Your task to perform on an android device: open app "Duolingo: language lessons" Image 0: 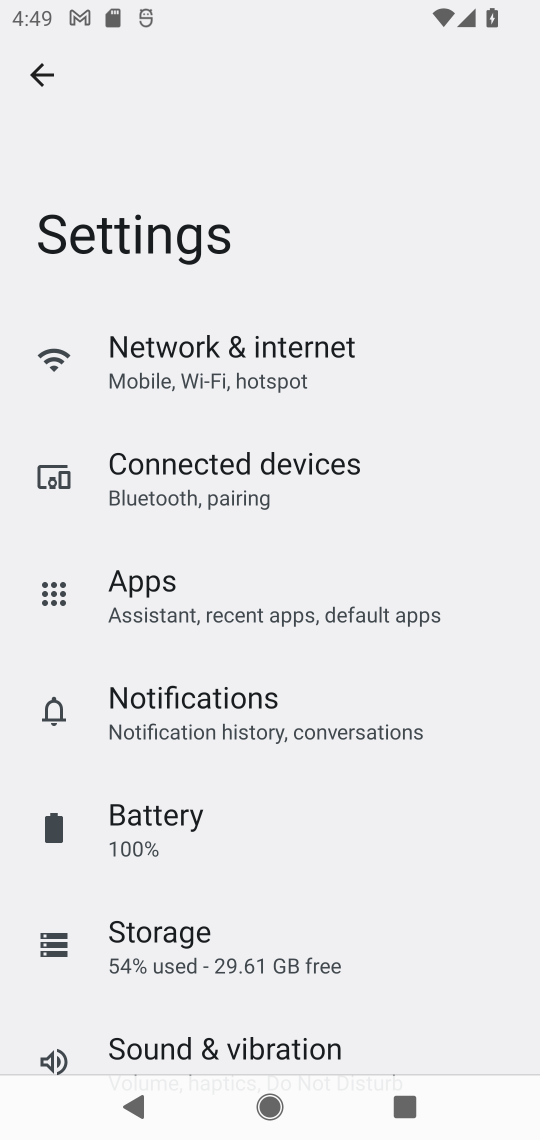
Step 0: press home button
Your task to perform on an android device: open app "Duolingo: language lessons" Image 1: 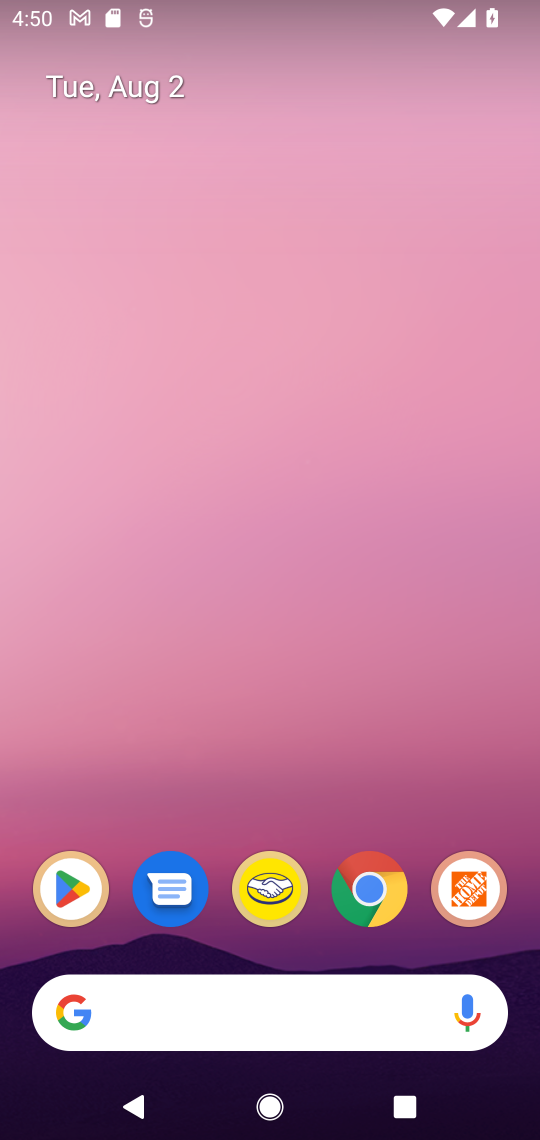
Step 1: drag from (415, 760) to (332, 75)
Your task to perform on an android device: open app "Duolingo: language lessons" Image 2: 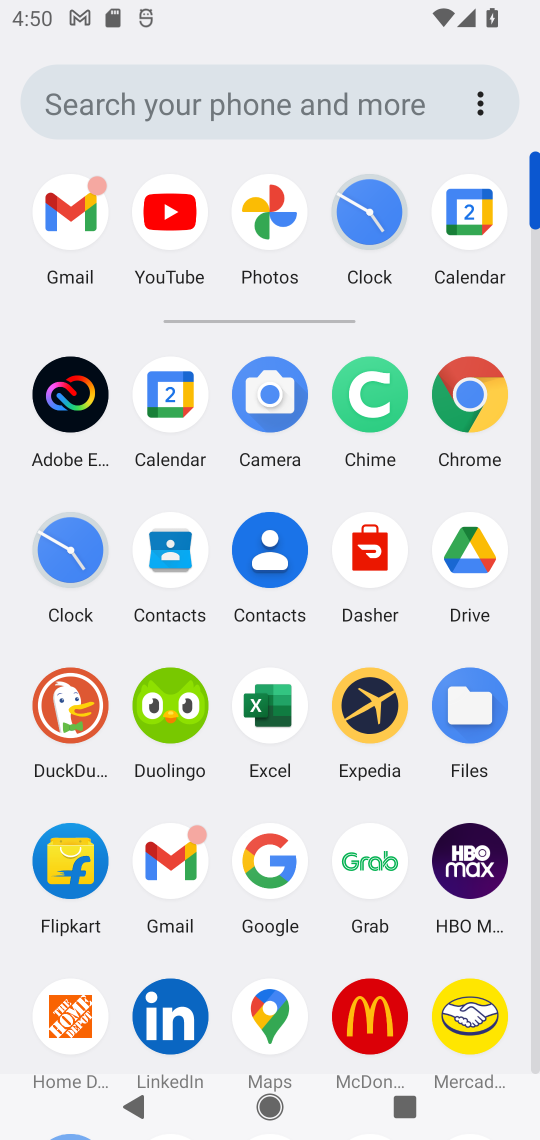
Step 2: drag from (514, 828) to (509, 511)
Your task to perform on an android device: open app "Duolingo: language lessons" Image 3: 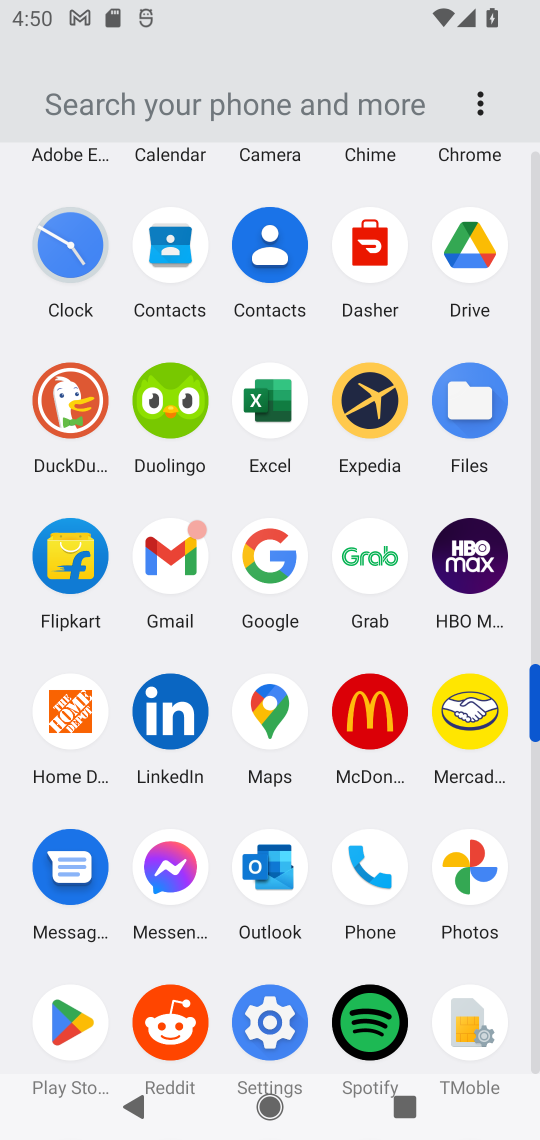
Step 3: drag from (515, 975) to (531, 608)
Your task to perform on an android device: open app "Duolingo: language lessons" Image 4: 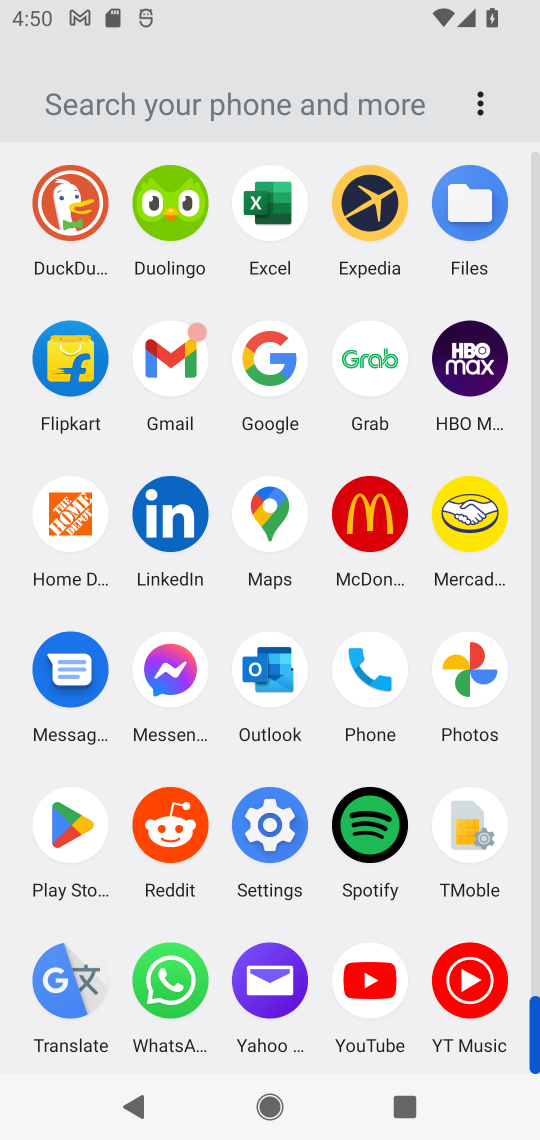
Step 4: click (65, 819)
Your task to perform on an android device: open app "Duolingo: language lessons" Image 5: 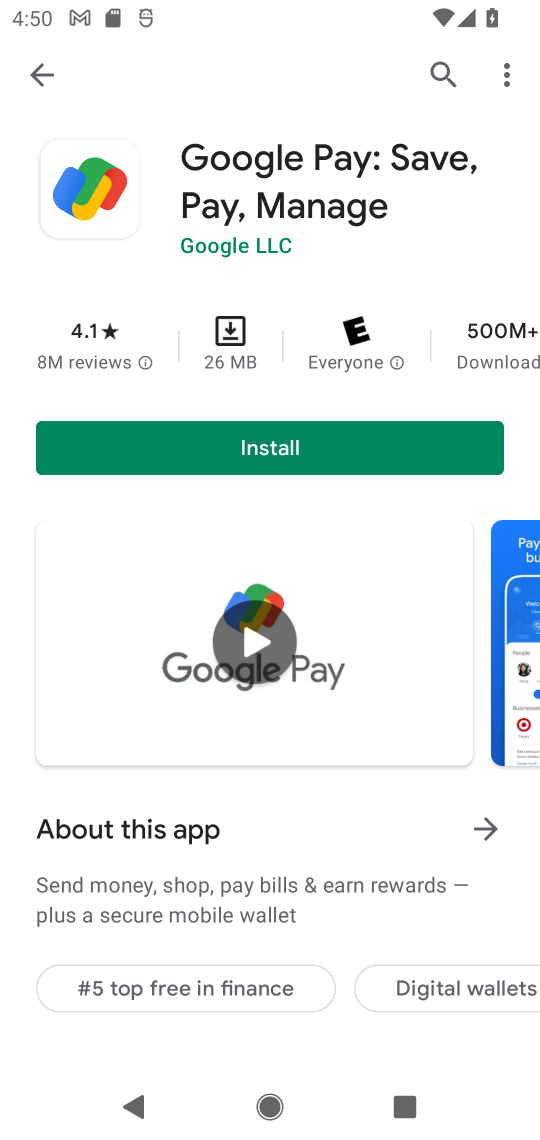
Step 5: click (438, 72)
Your task to perform on an android device: open app "Duolingo: language lessons" Image 6: 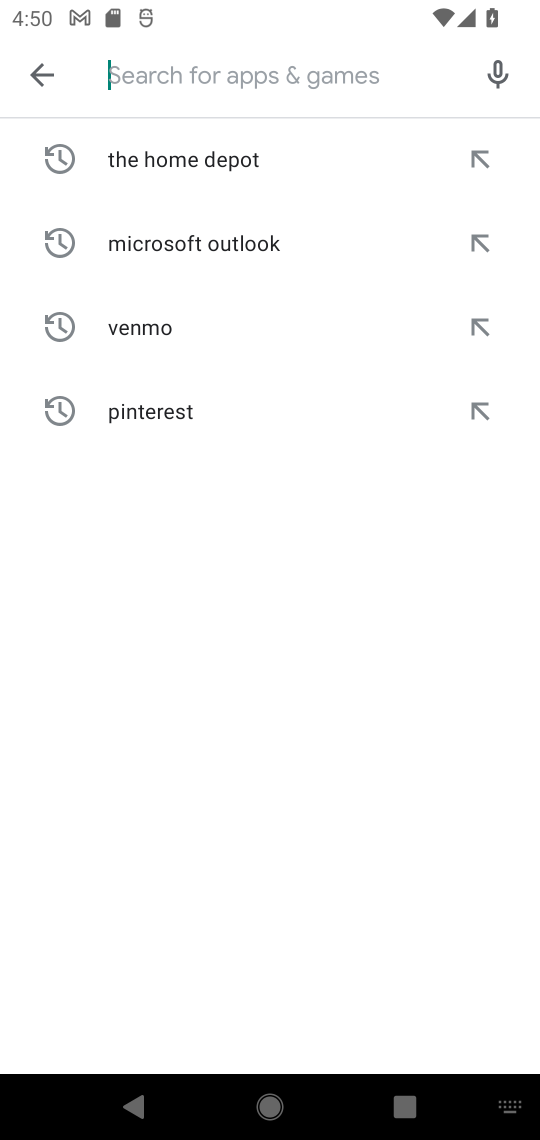
Step 6: click (343, 81)
Your task to perform on an android device: open app "Duolingo: language lessons" Image 7: 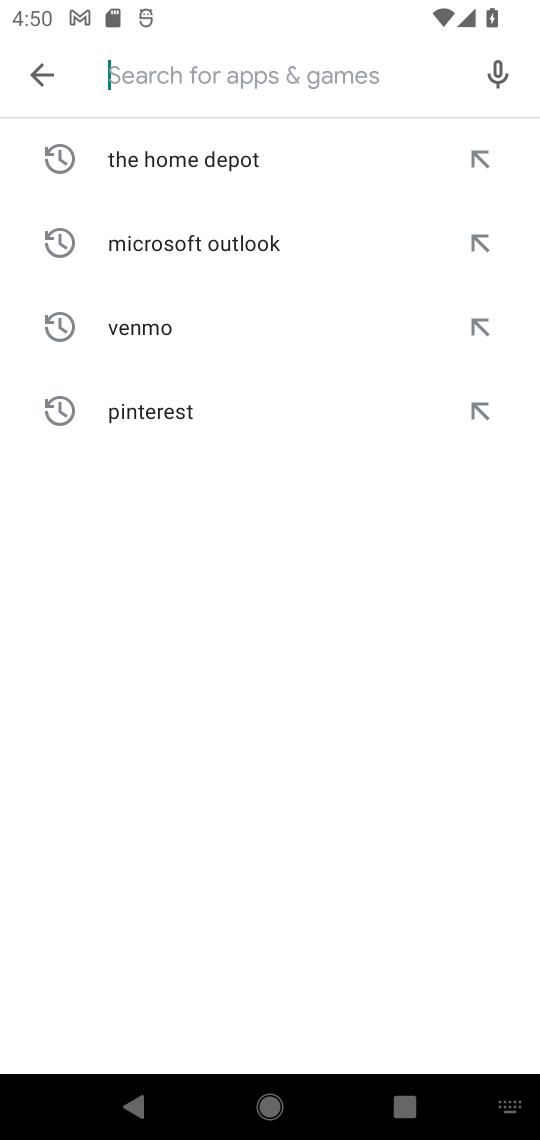
Step 7: type "Duolingo: language lessons"
Your task to perform on an android device: open app "Duolingo: language lessons" Image 8: 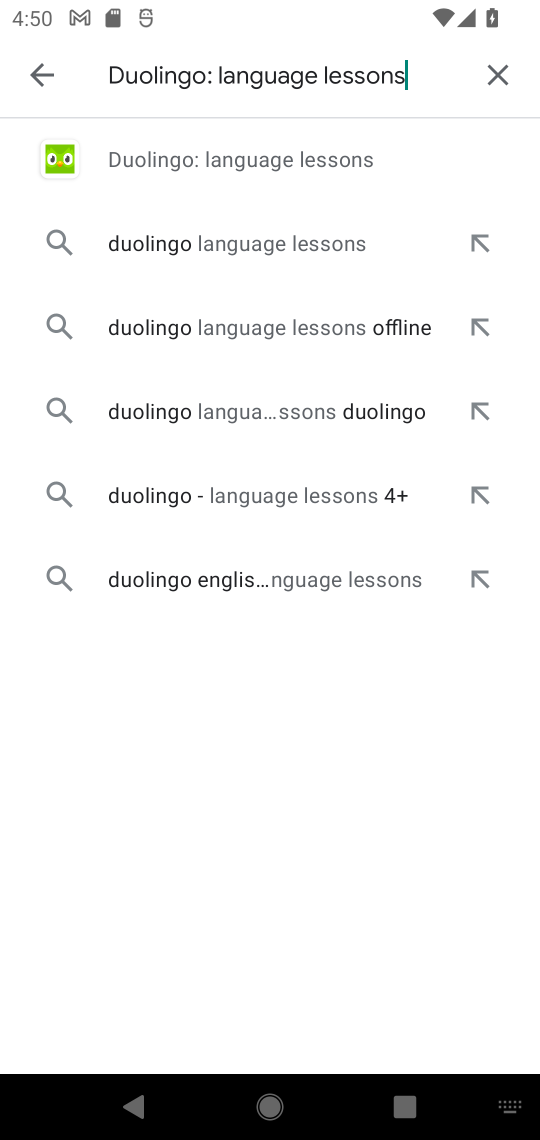
Step 8: click (309, 164)
Your task to perform on an android device: open app "Duolingo: language lessons" Image 9: 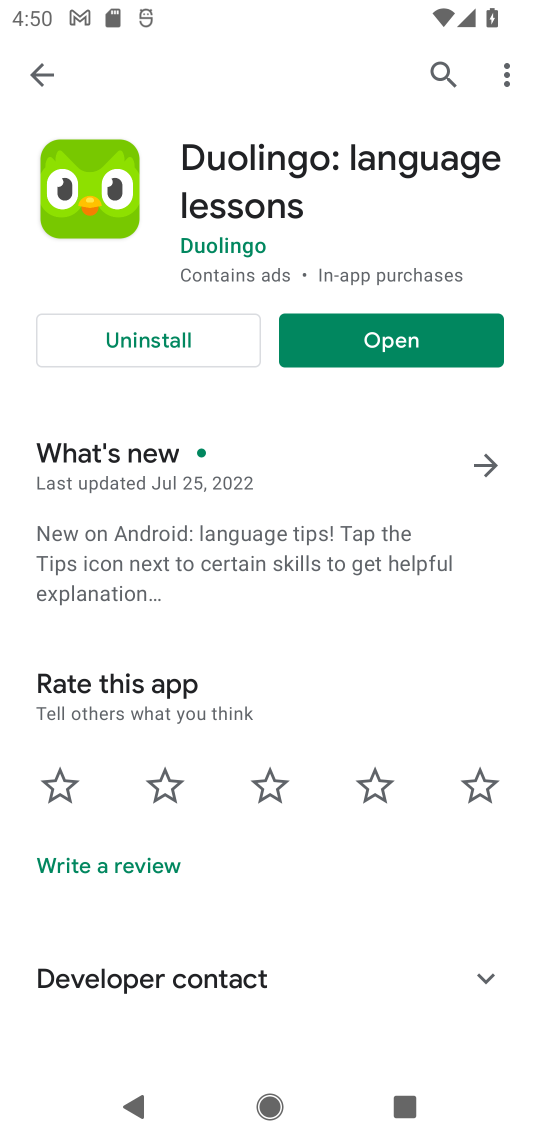
Step 9: click (384, 337)
Your task to perform on an android device: open app "Duolingo: language lessons" Image 10: 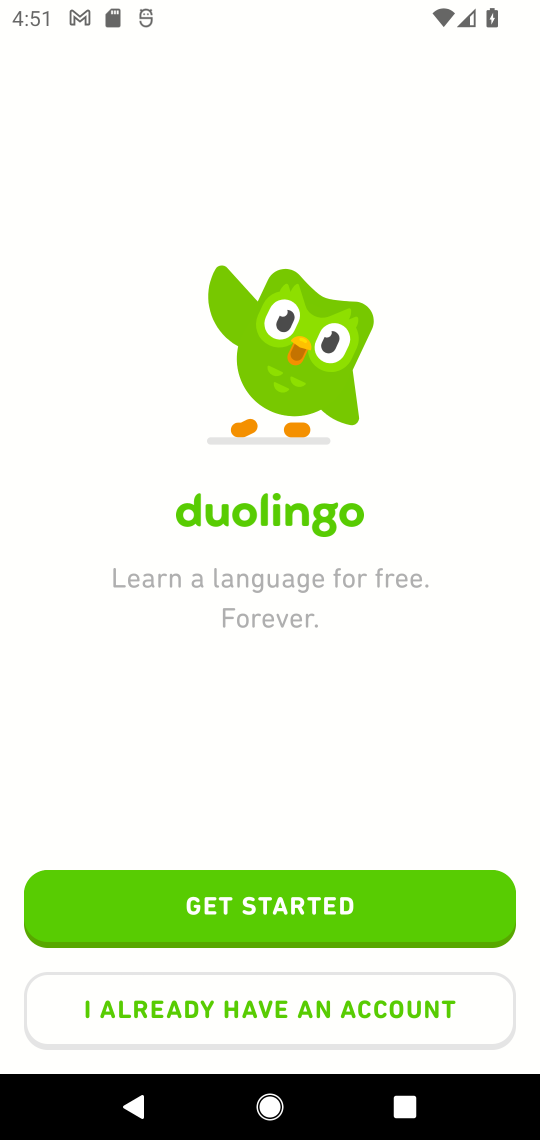
Step 10: task complete